Your task to perform on an android device: Turn off the flashlight Image 0: 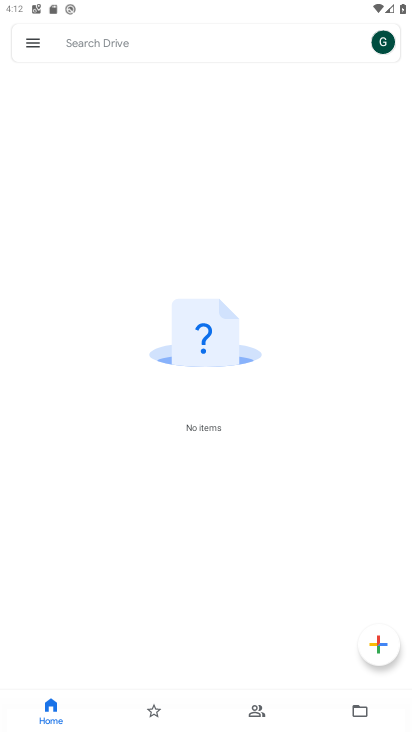
Step 0: press home button
Your task to perform on an android device: Turn off the flashlight Image 1: 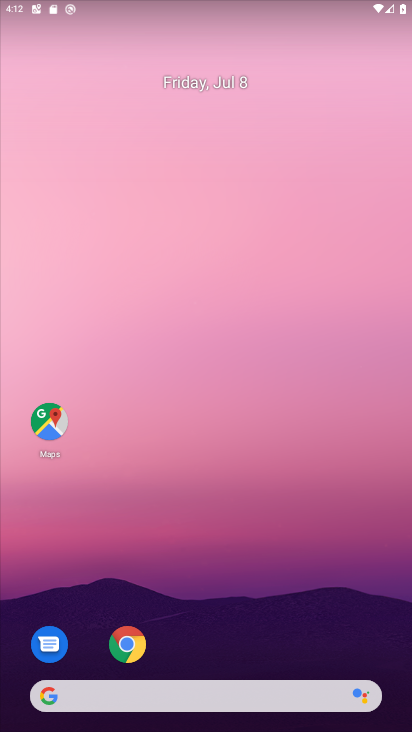
Step 1: drag from (216, 12) to (229, 421)
Your task to perform on an android device: Turn off the flashlight Image 2: 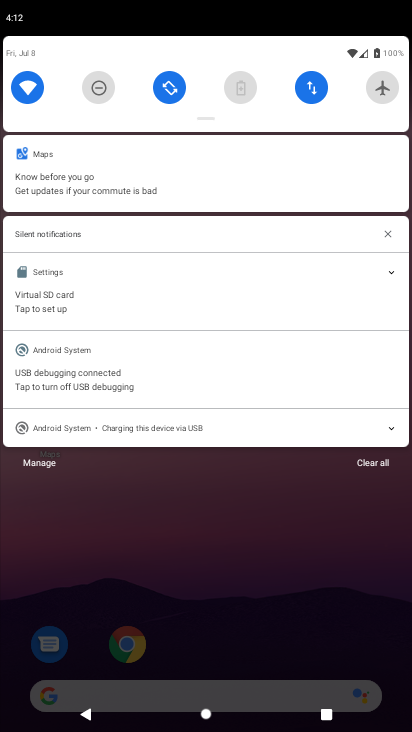
Step 2: drag from (202, 115) to (221, 415)
Your task to perform on an android device: Turn off the flashlight Image 3: 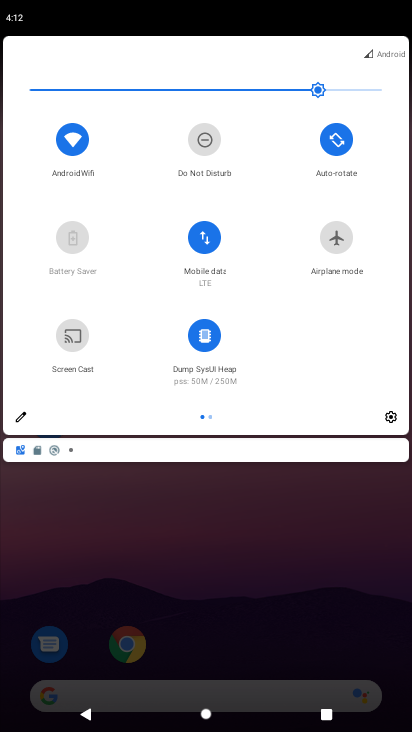
Step 3: click (18, 418)
Your task to perform on an android device: Turn off the flashlight Image 4: 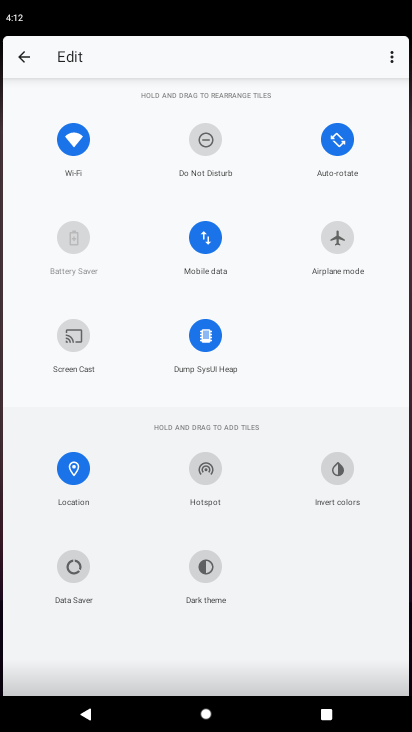
Step 4: task complete